Your task to perform on an android device: install app "Lyft - Rideshare, Bikes, Scooters & Transit" Image 0: 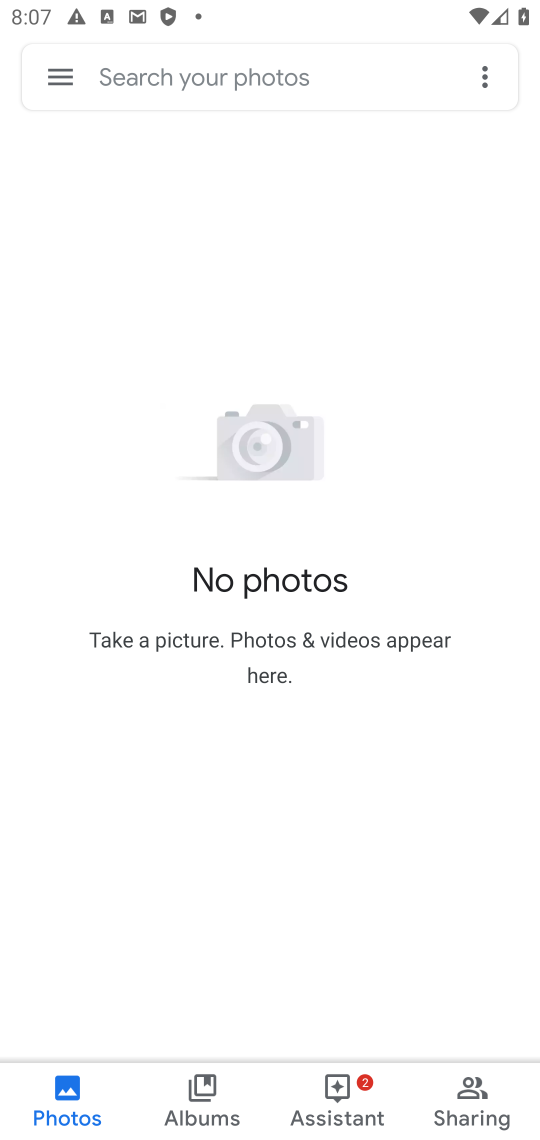
Step 0: press home button
Your task to perform on an android device: install app "Lyft - Rideshare, Bikes, Scooters & Transit" Image 1: 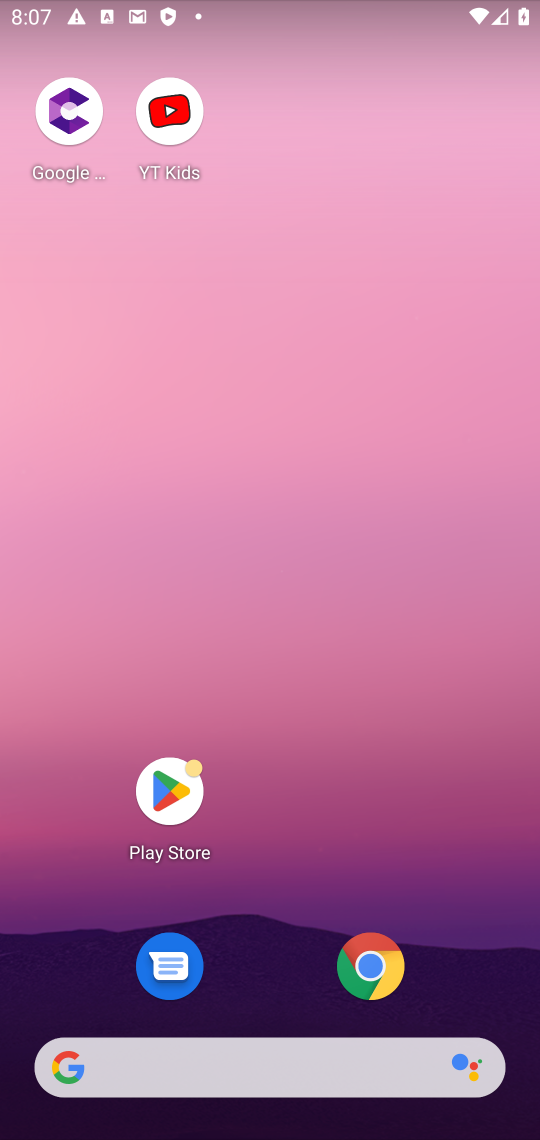
Step 1: drag from (516, 1081) to (473, 85)
Your task to perform on an android device: install app "Lyft - Rideshare, Bikes, Scooters & Transit" Image 2: 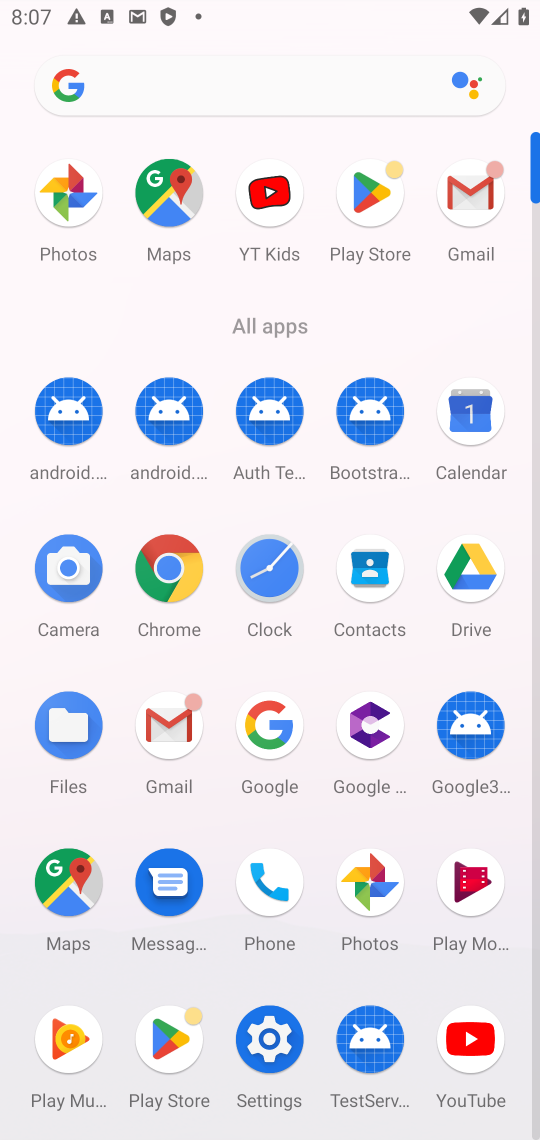
Step 2: click (162, 1040)
Your task to perform on an android device: install app "Lyft - Rideshare, Bikes, Scooters & Transit" Image 3: 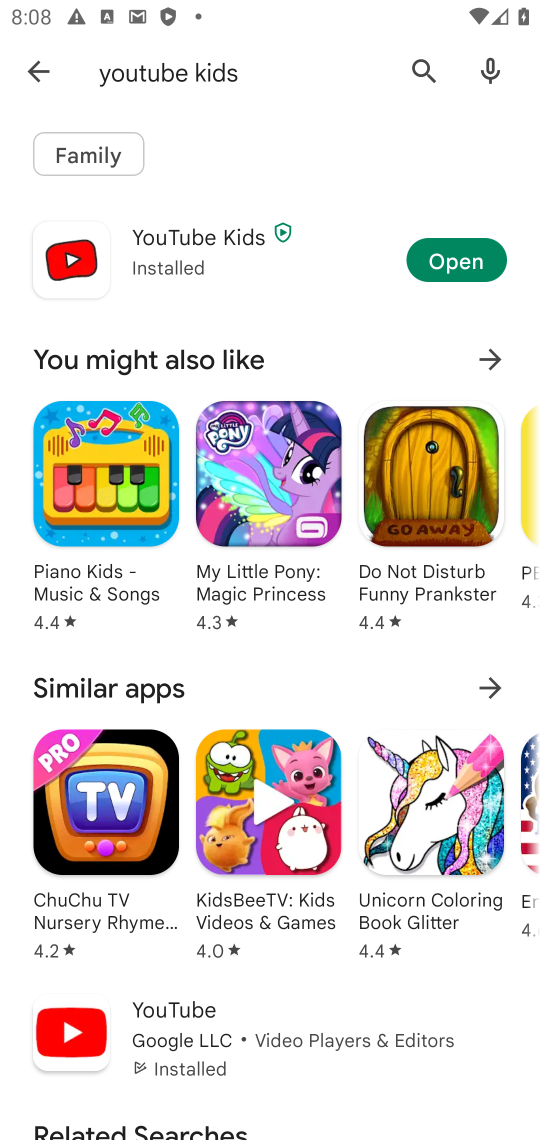
Step 3: click (431, 74)
Your task to perform on an android device: install app "Lyft - Rideshare, Bikes, Scooters & Transit" Image 4: 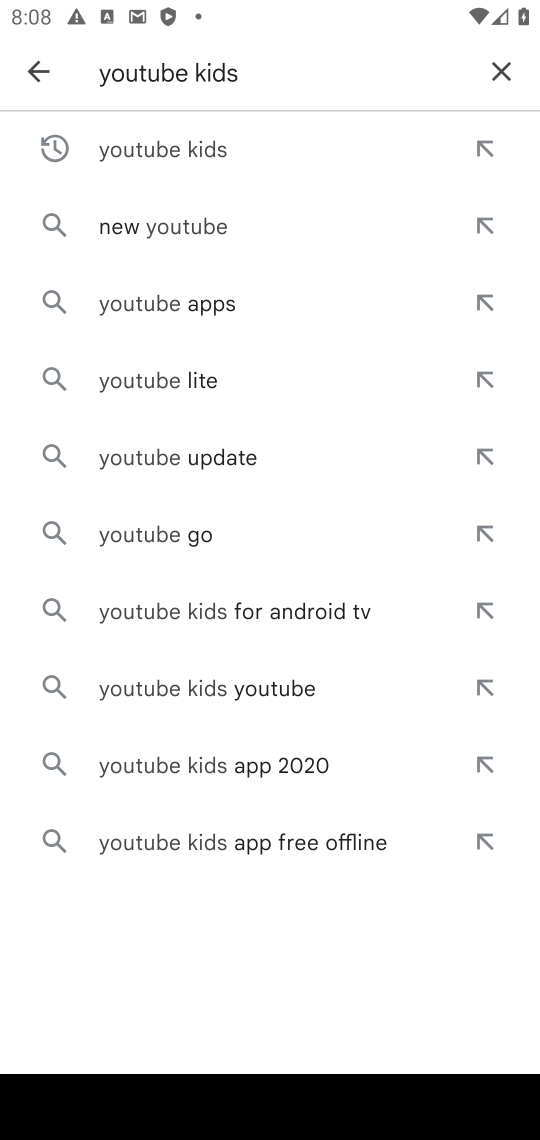
Step 4: click (498, 78)
Your task to perform on an android device: install app "Lyft - Rideshare, Bikes, Scooters & Transit" Image 5: 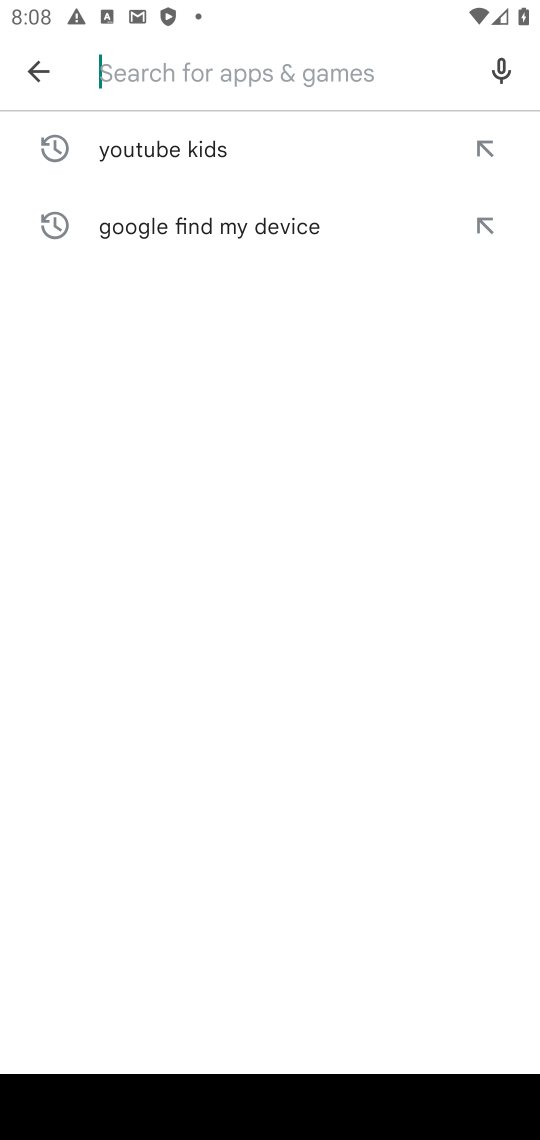
Step 5: type "Lyft - Rideshare, Bikes, Scooters & Transit"
Your task to perform on an android device: install app "Lyft - Rideshare, Bikes, Scooters & Transit" Image 6: 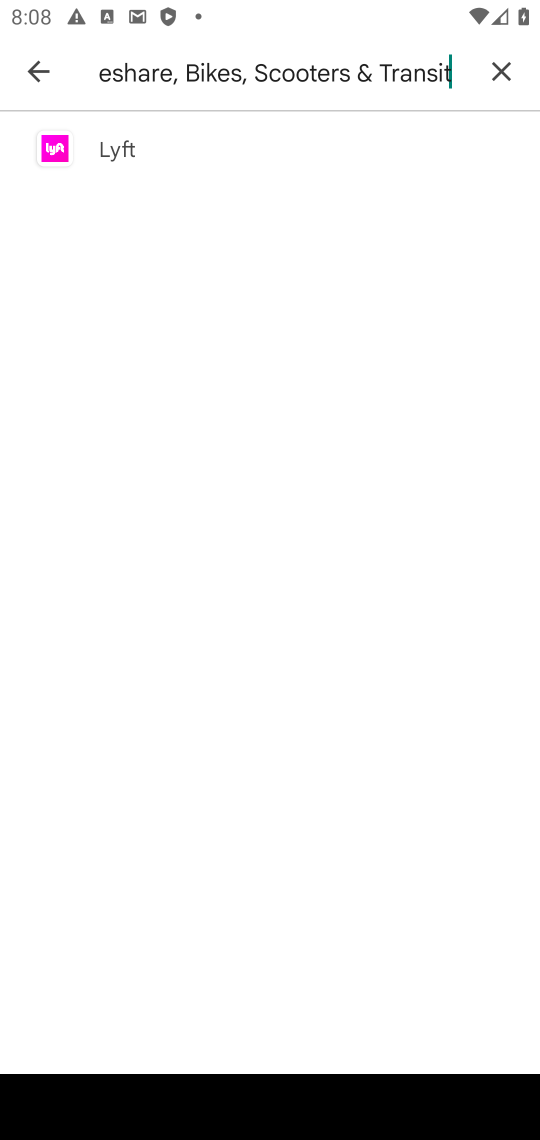
Step 6: click (59, 146)
Your task to perform on an android device: install app "Lyft - Rideshare, Bikes, Scooters & Transit" Image 7: 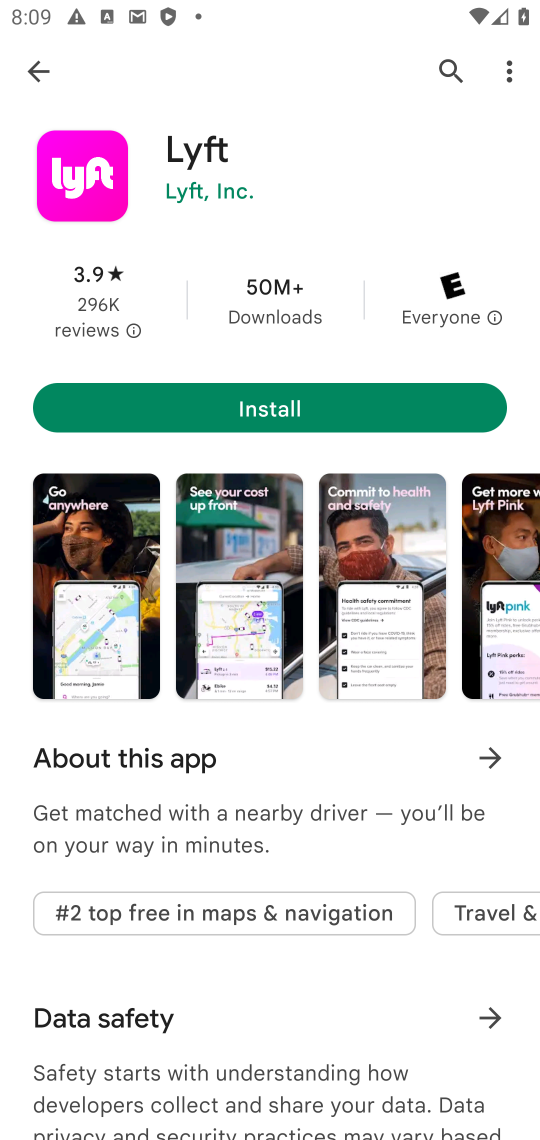
Step 7: click (286, 411)
Your task to perform on an android device: install app "Lyft - Rideshare, Bikes, Scooters & Transit" Image 8: 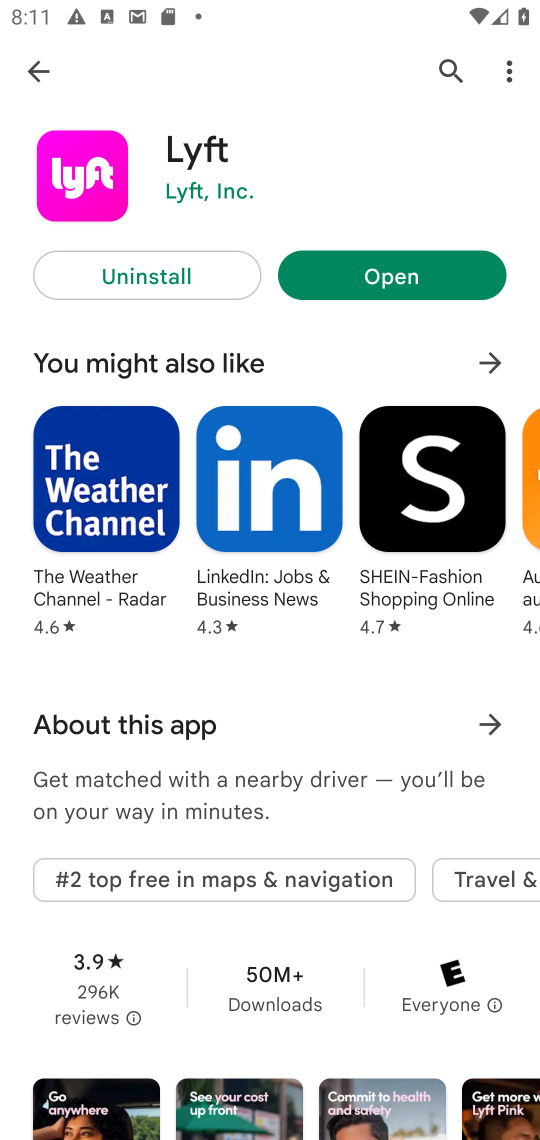
Step 8: task complete